Your task to perform on an android device: Do I have any events this weekend? Image 0: 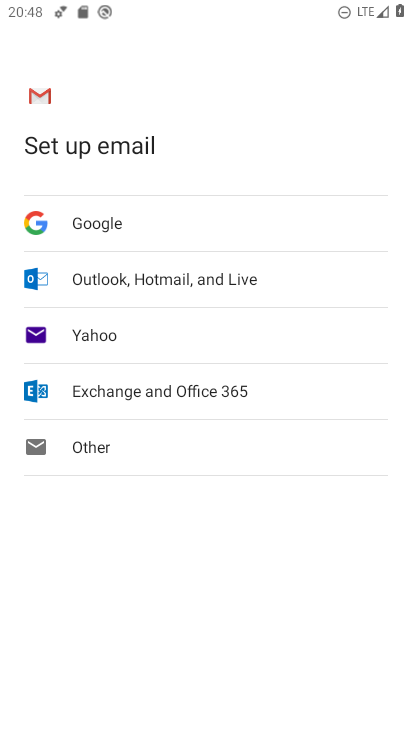
Step 0: drag from (293, 628) to (312, 108)
Your task to perform on an android device: Do I have any events this weekend? Image 1: 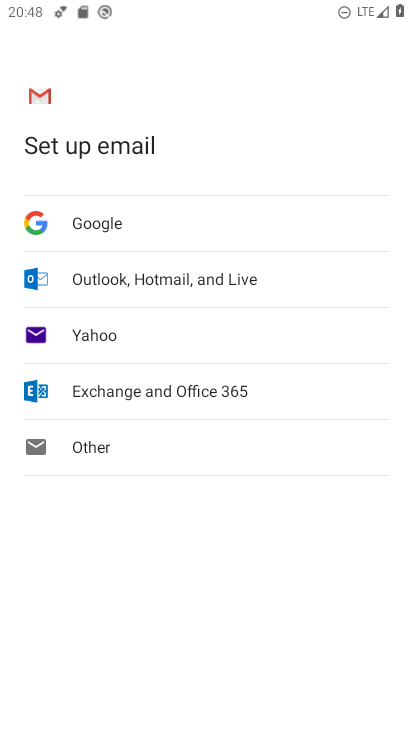
Step 1: drag from (196, 511) to (223, 241)
Your task to perform on an android device: Do I have any events this weekend? Image 2: 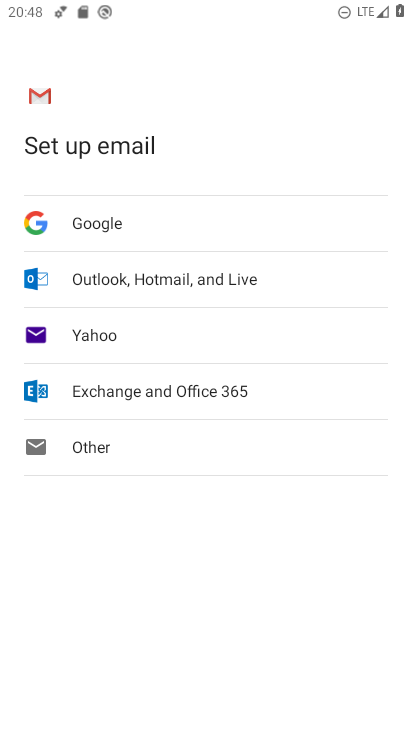
Step 2: drag from (317, 562) to (294, 61)
Your task to perform on an android device: Do I have any events this weekend? Image 3: 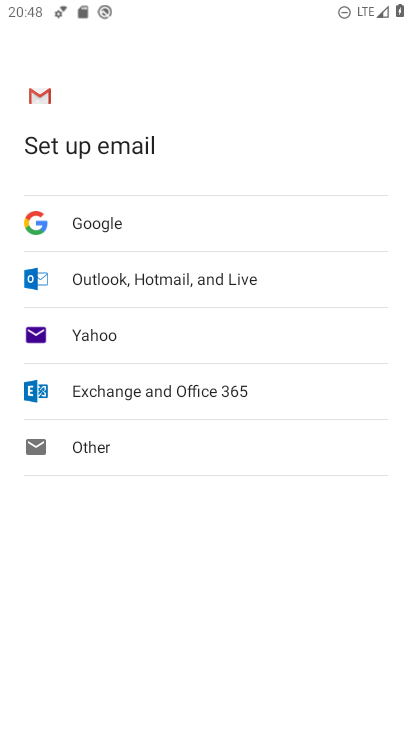
Step 3: drag from (196, 604) to (290, 52)
Your task to perform on an android device: Do I have any events this weekend? Image 4: 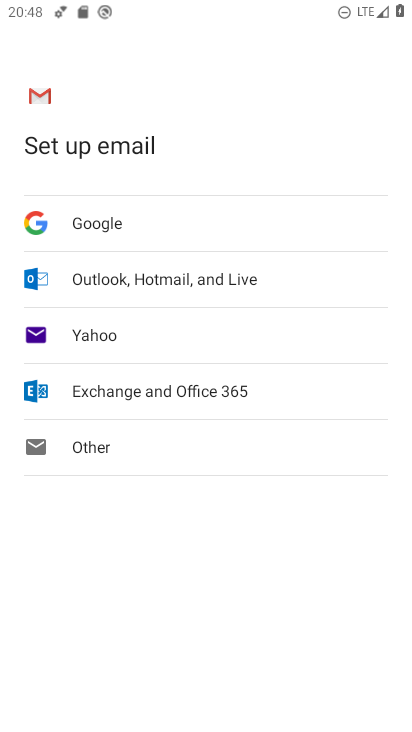
Step 4: drag from (177, 507) to (236, 148)
Your task to perform on an android device: Do I have any events this weekend? Image 5: 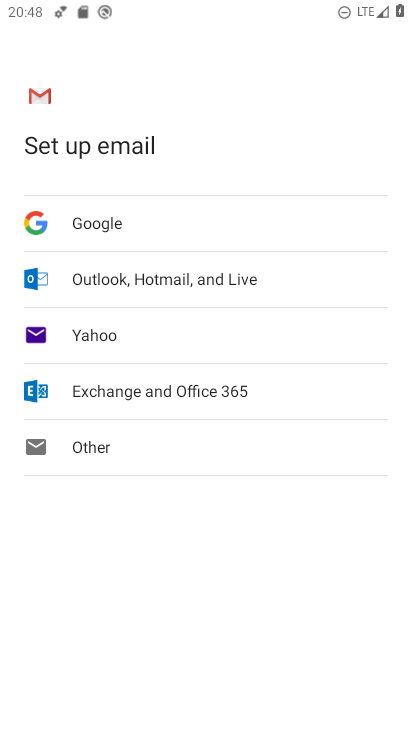
Step 5: press home button
Your task to perform on an android device: Do I have any events this weekend? Image 6: 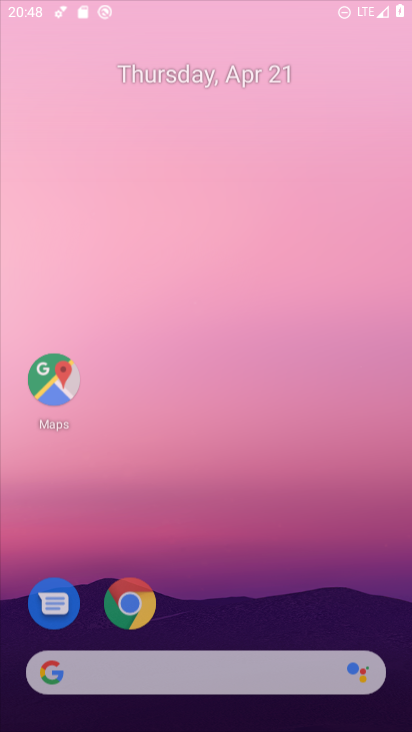
Step 6: drag from (203, 419) to (218, 112)
Your task to perform on an android device: Do I have any events this weekend? Image 7: 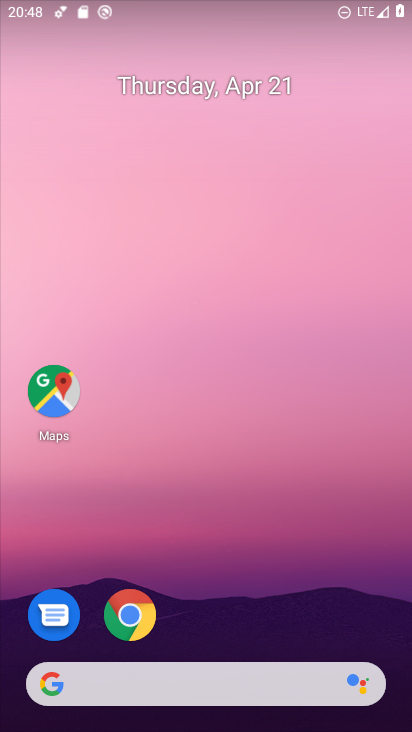
Step 7: drag from (219, 607) to (261, 108)
Your task to perform on an android device: Do I have any events this weekend? Image 8: 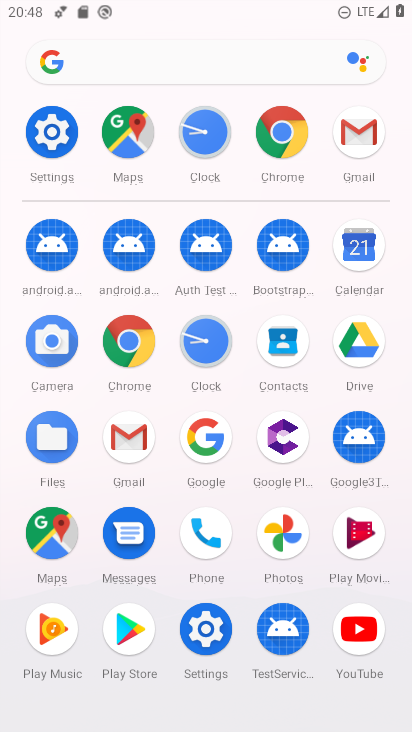
Step 8: click (358, 232)
Your task to perform on an android device: Do I have any events this weekend? Image 9: 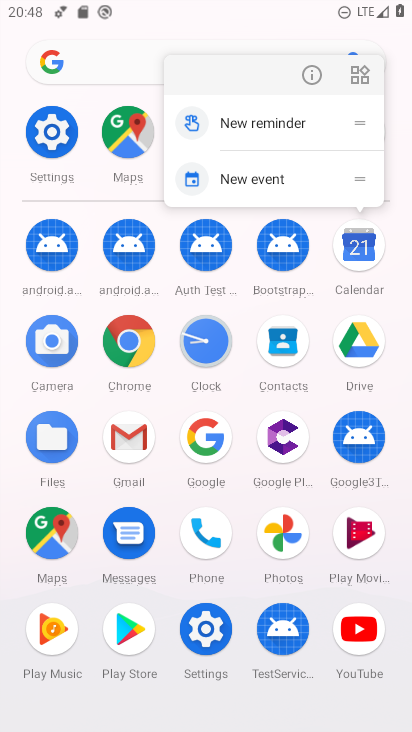
Step 9: click (304, 89)
Your task to perform on an android device: Do I have any events this weekend? Image 10: 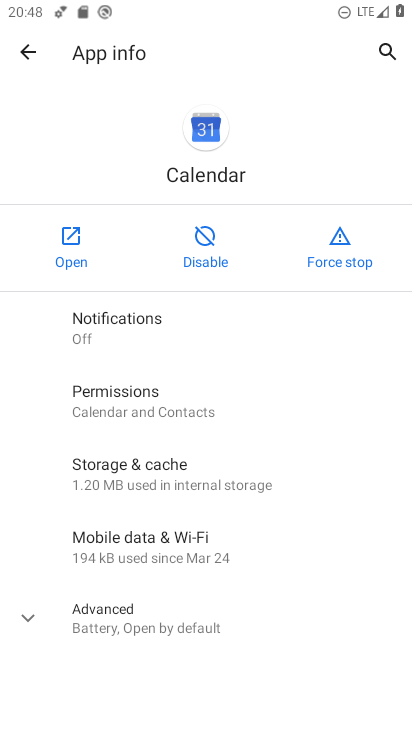
Step 10: click (75, 238)
Your task to perform on an android device: Do I have any events this weekend? Image 11: 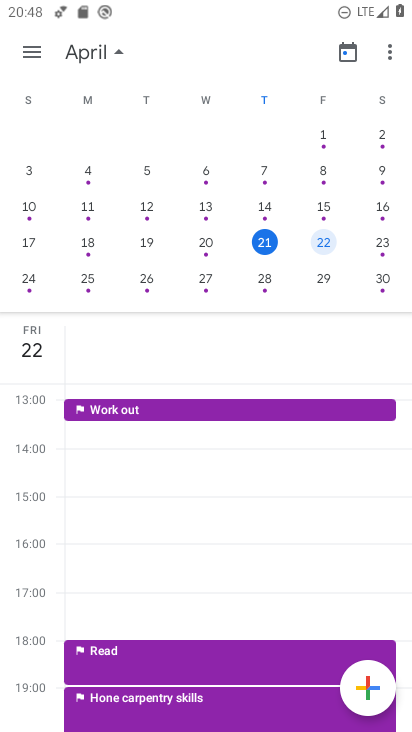
Step 11: drag from (231, 623) to (301, 93)
Your task to perform on an android device: Do I have any events this weekend? Image 12: 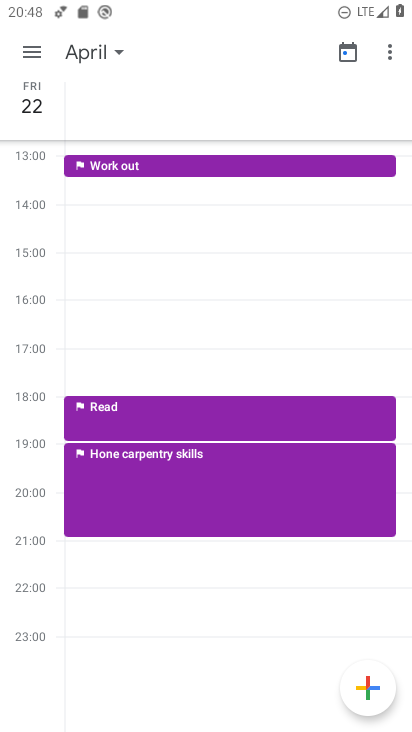
Step 12: drag from (240, 213) to (339, 638)
Your task to perform on an android device: Do I have any events this weekend? Image 13: 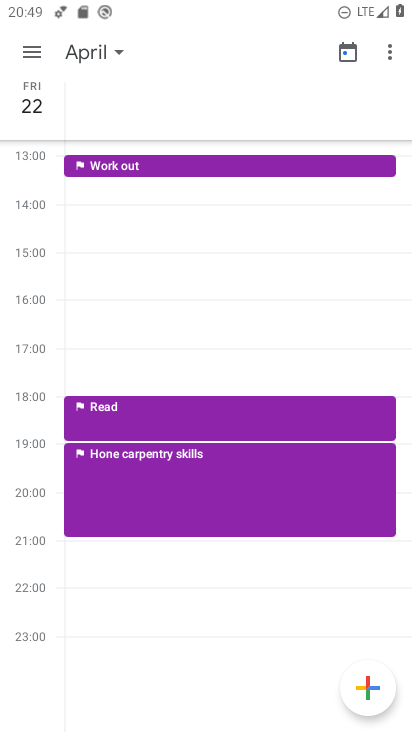
Step 13: click (94, 57)
Your task to perform on an android device: Do I have any events this weekend? Image 14: 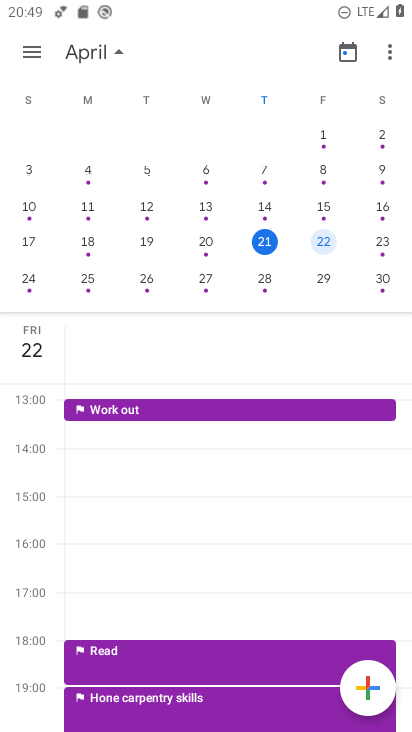
Step 14: click (379, 243)
Your task to perform on an android device: Do I have any events this weekend? Image 15: 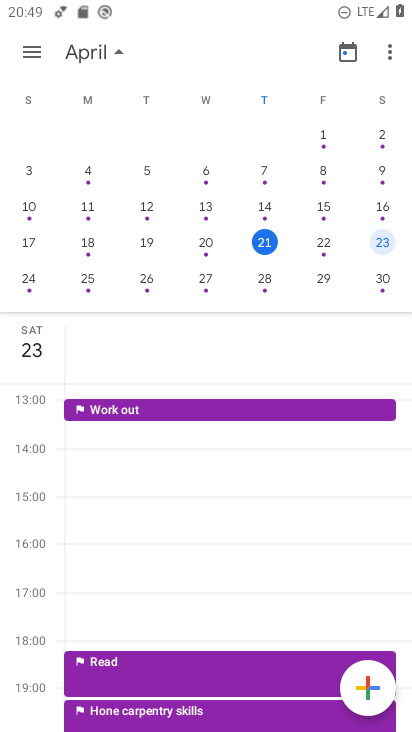
Step 15: task complete